Your task to perform on an android device: check google app version Image 0: 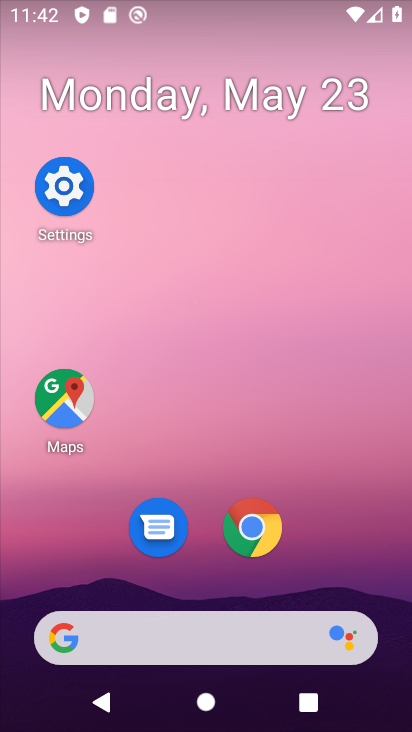
Step 0: drag from (350, 523) to (402, 54)
Your task to perform on an android device: check google app version Image 1: 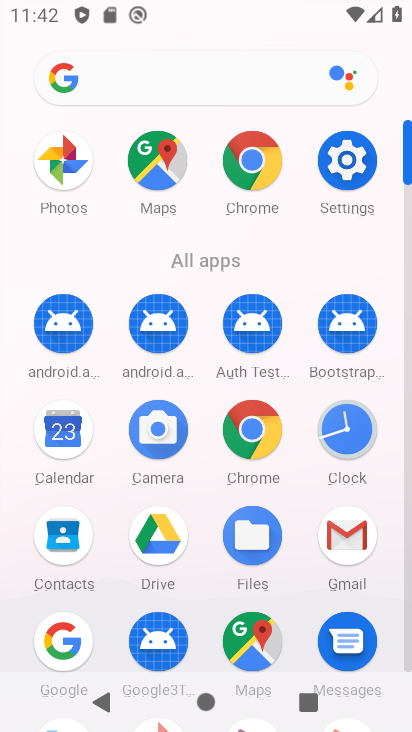
Step 1: drag from (291, 569) to (282, 77)
Your task to perform on an android device: check google app version Image 2: 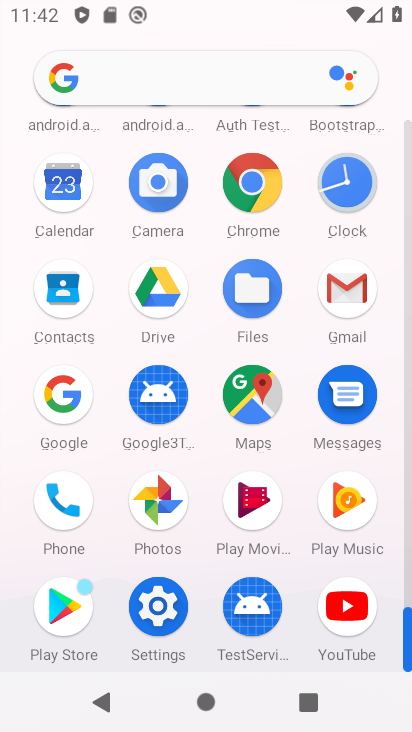
Step 2: drag from (78, 389) to (134, 365)
Your task to perform on an android device: check google app version Image 3: 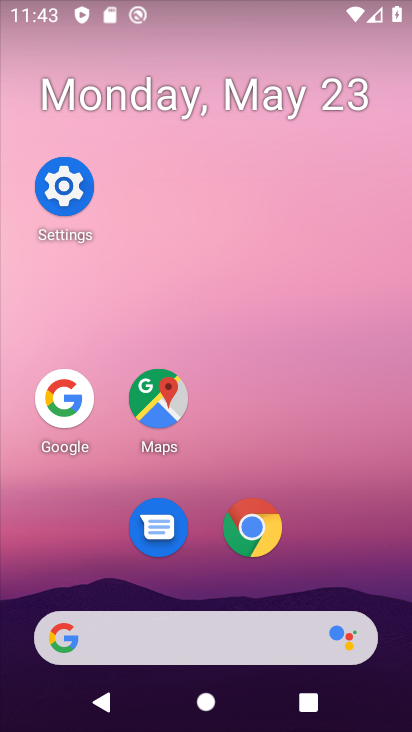
Step 3: drag from (66, 398) to (223, 378)
Your task to perform on an android device: check google app version Image 4: 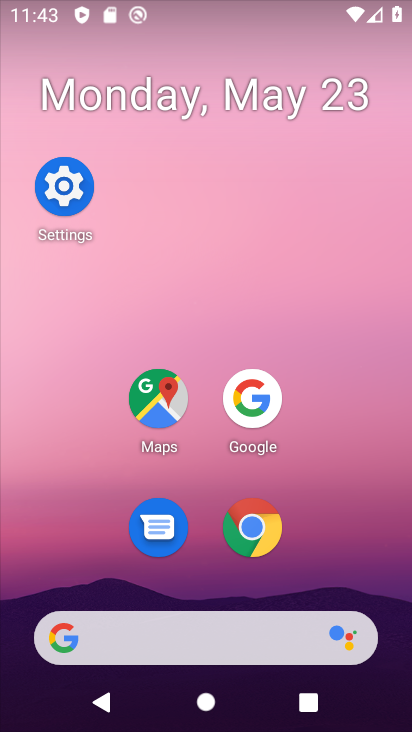
Step 4: drag from (157, 387) to (43, 407)
Your task to perform on an android device: check google app version Image 5: 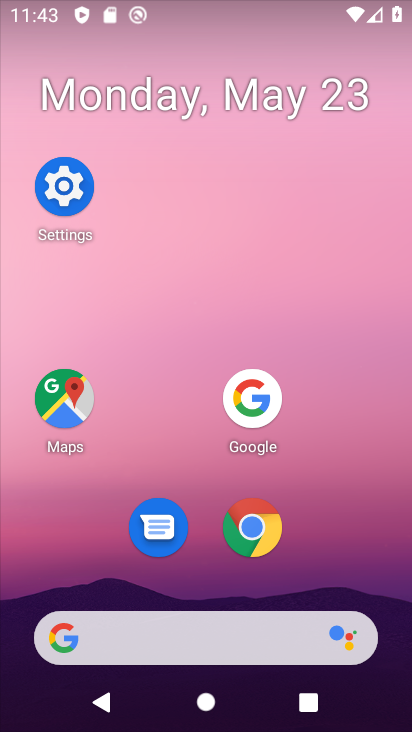
Step 5: drag from (238, 398) to (135, 406)
Your task to perform on an android device: check google app version Image 6: 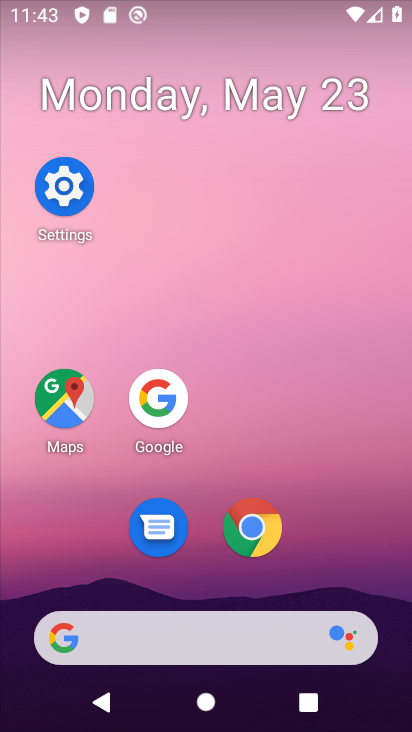
Step 6: click (166, 392)
Your task to perform on an android device: check google app version Image 7: 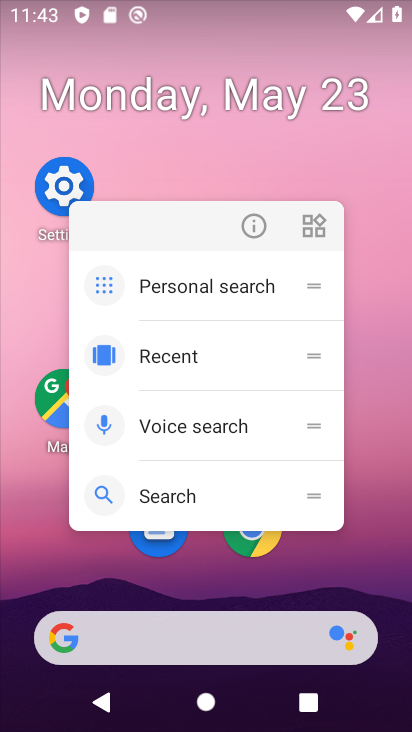
Step 7: click (249, 234)
Your task to perform on an android device: check google app version Image 8: 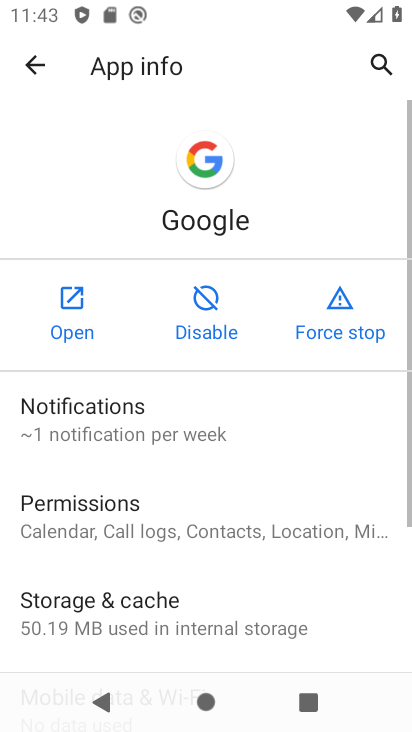
Step 8: drag from (256, 586) to (224, 127)
Your task to perform on an android device: check google app version Image 9: 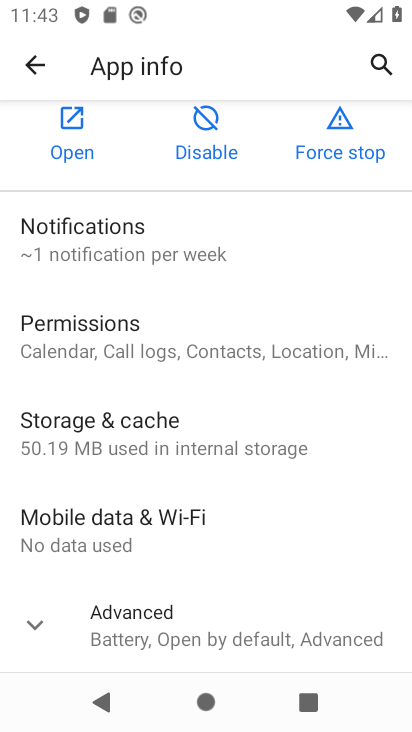
Step 9: click (241, 628)
Your task to perform on an android device: check google app version Image 10: 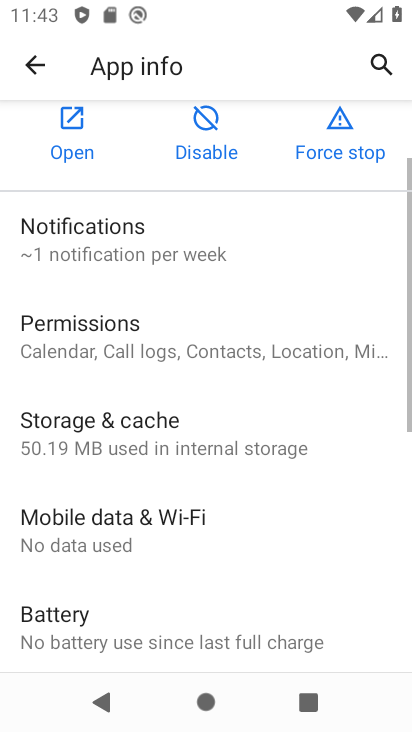
Step 10: task complete